Your task to perform on an android device: turn on the 12-hour format for clock Image 0: 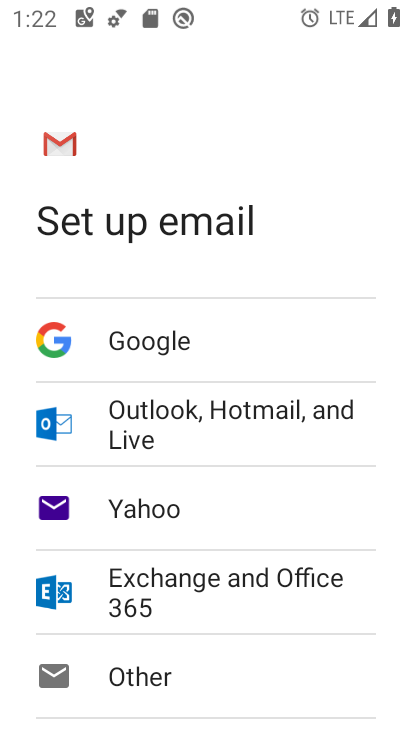
Step 0: press home button
Your task to perform on an android device: turn on the 12-hour format for clock Image 1: 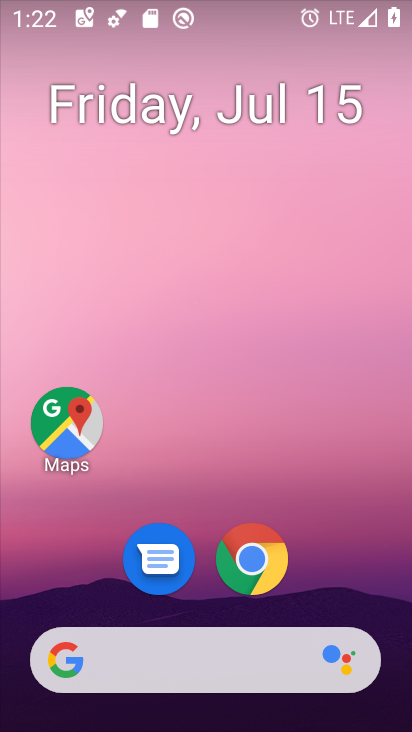
Step 1: drag from (350, 577) to (366, 142)
Your task to perform on an android device: turn on the 12-hour format for clock Image 2: 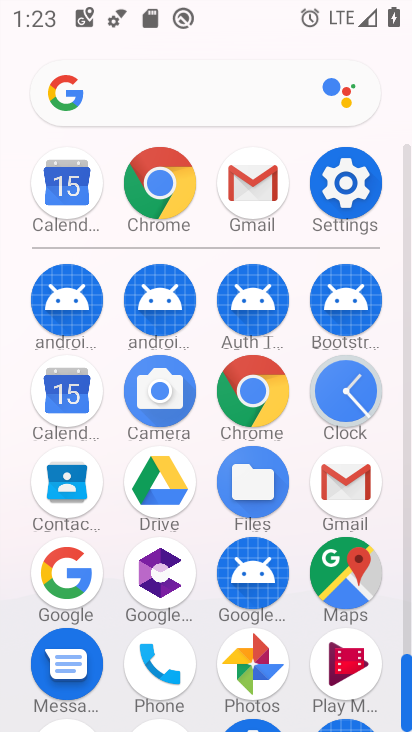
Step 2: click (345, 386)
Your task to perform on an android device: turn on the 12-hour format for clock Image 3: 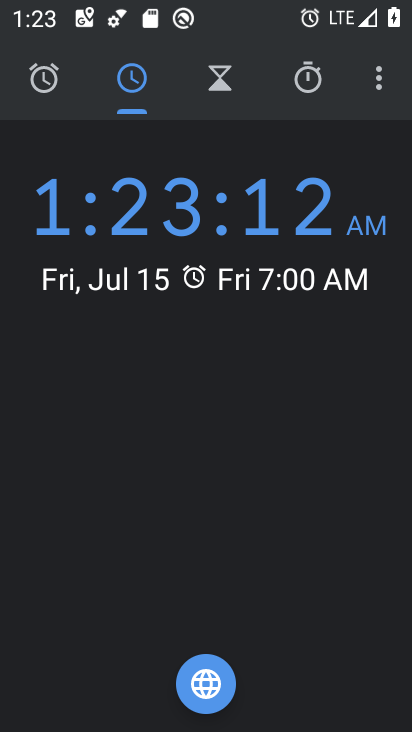
Step 3: click (380, 88)
Your task to perform on an android device: turn on the 12-hour format for clock Image 4: 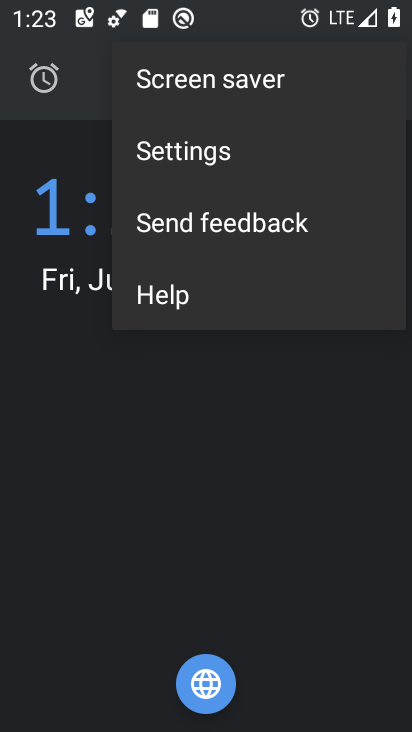
Step 4: click (283, 170)
Your task to perform on an android device: turn on the 12-hour format for clock Image 5: 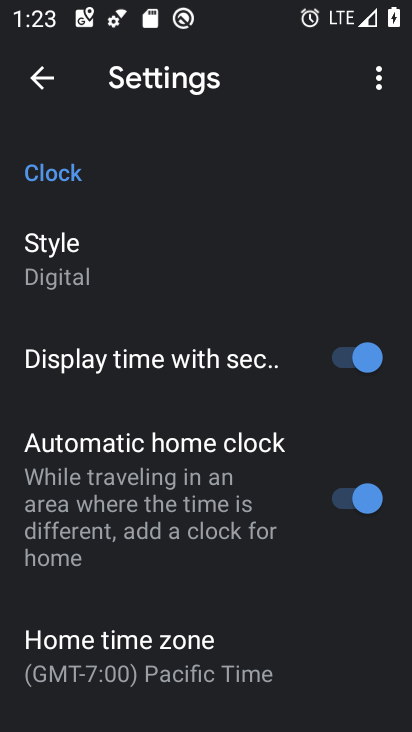
Step 5: drag from (275, 478) to (290, 384)
Your task to perform on an android device: turn on the 12-hour format for clock Image 6: 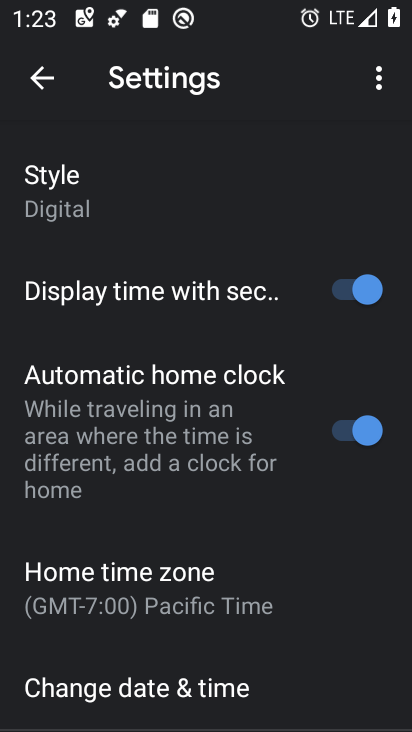
Step 6: drag from (294, 511) to (293, 424)
Your task to perform on an android device: turn on the 12-hour format for clock Image 7: 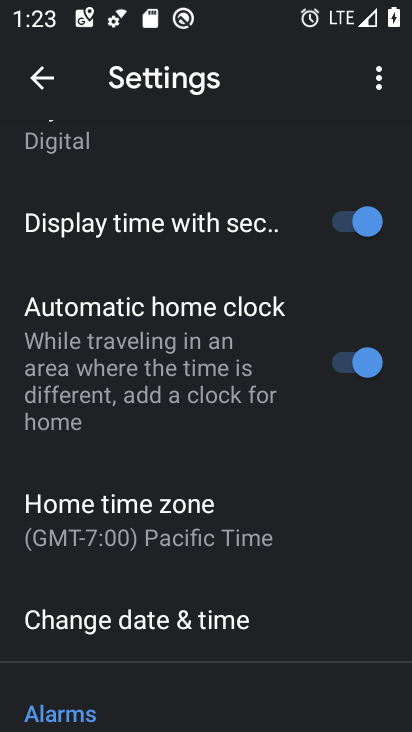
Step 7: drag from (287, 526) to (287, 430)
Your task to perform on an android device: turn on the 12-hour format for clock Image 8: 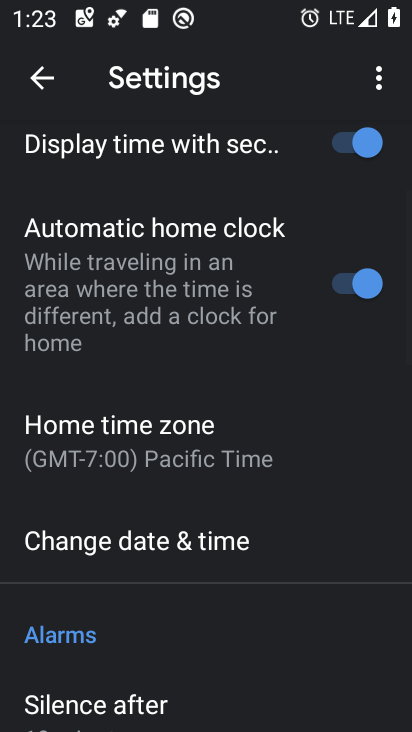
Step 8: drag from (292, 531) to (287, 422)
Your task to perform on an android device: turn on the 12-hour format for clock Image 9: 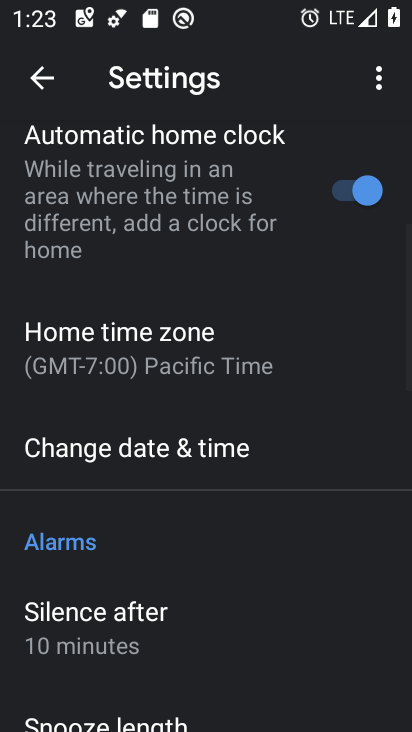
Step 9: drag from (288, 536) to (281, 454)
Your task to perform on an android device: turn on the 12-hour format for clock Image 10: 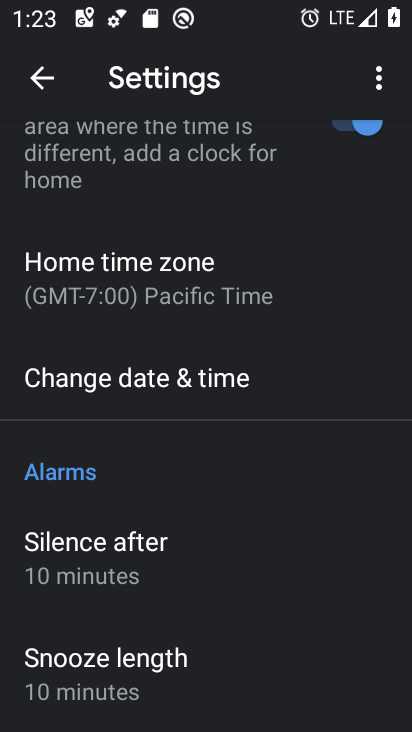
Step 10: drag from (278, 539) to (276, 440)
Your task to perform on an android device: turn on the 12-hour format for clock Image 11: 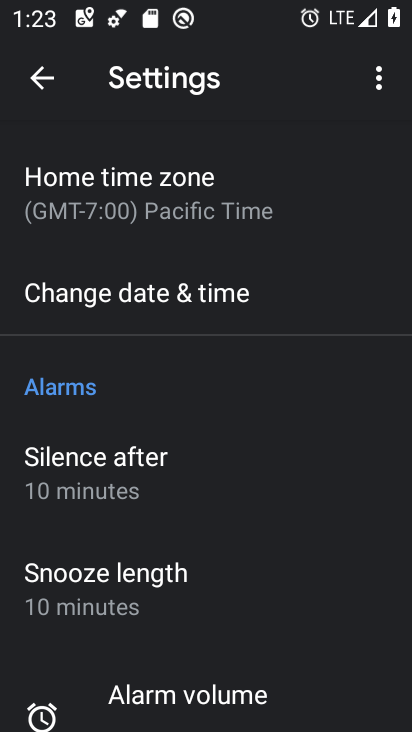
Step 11: click (283, 324)
Your task to perform on an android device: turn on the 12-hour format for clock Image 12: 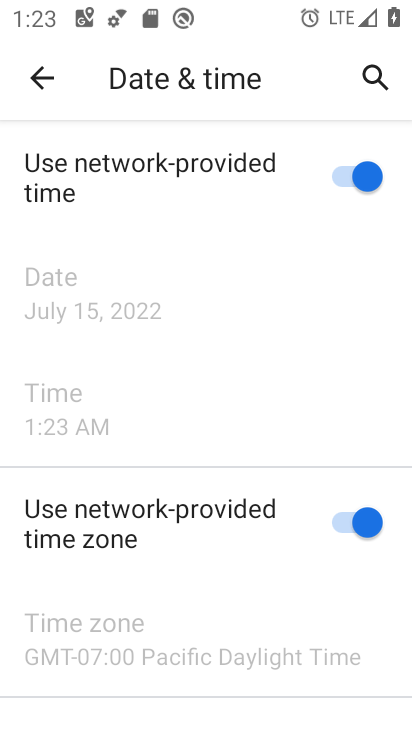
Step 12: task complete